Your task to perform on an android device: What's the weather? Image 0: 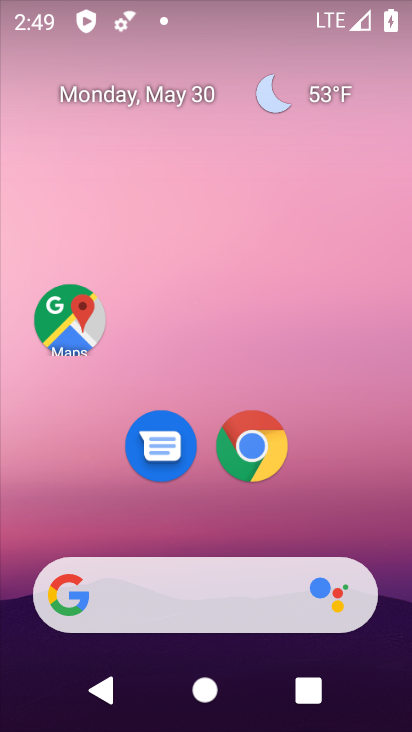
Step 0: drag from (336, 516) to (239, 149)
Your task to perform on an android device: What's the weather? Image 1: 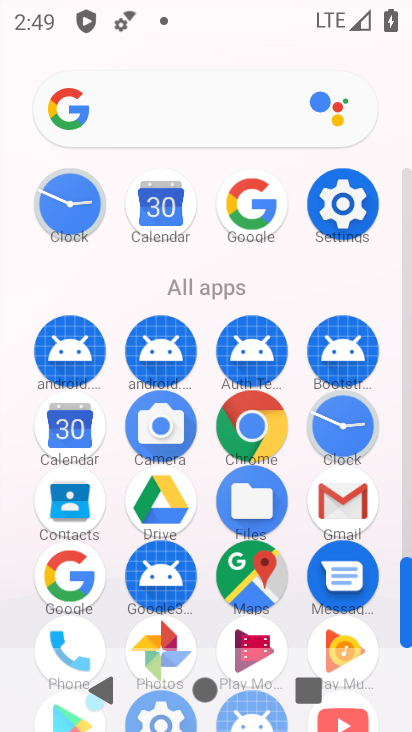
Step 1: click (245, 202)
Your task to perform on an android device: What's the weather? Image 2: 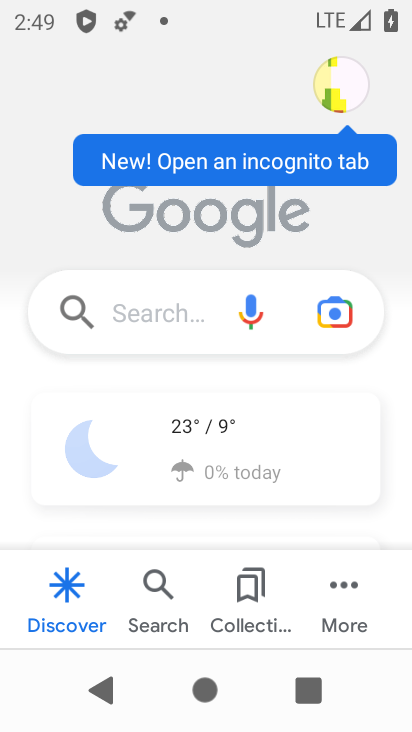
Step 2: click (213, 455)
Your task to perform on an android device: What's the weather? Image 3: 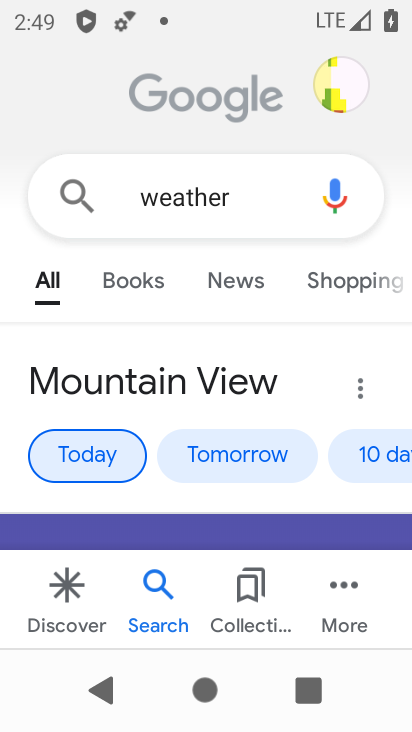
Step 3: task complete